Your task to perform on an android device: turn off airplane mode Image 0: 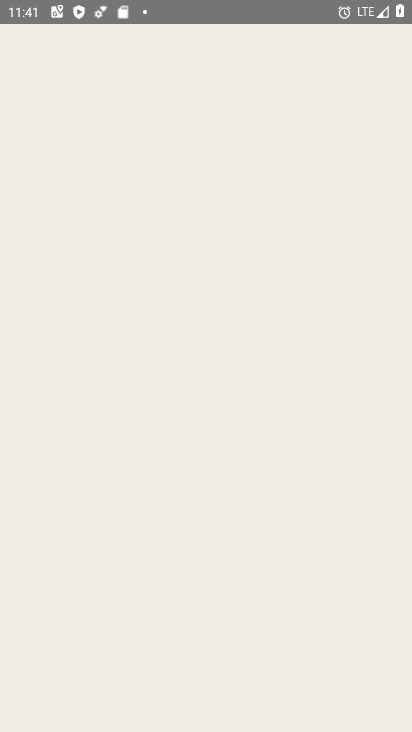
Step 0: drag from (265, 618) to (359, 115)
Your task to perform on an android device: turn off airplane mode Image 1: 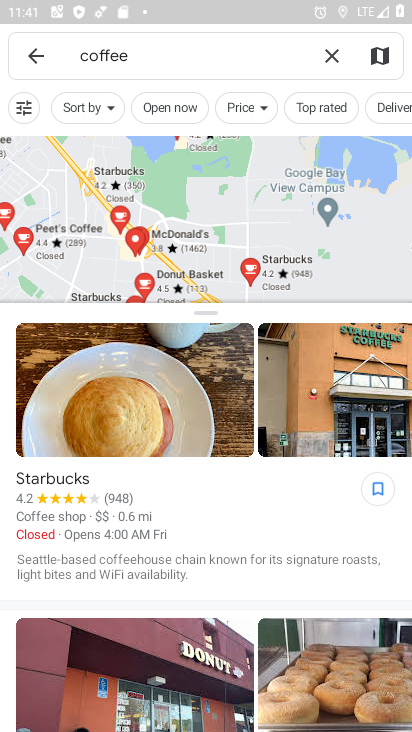
Step 1: press home button
Your task to perform on an android device: turn off airplane mode Image 2: 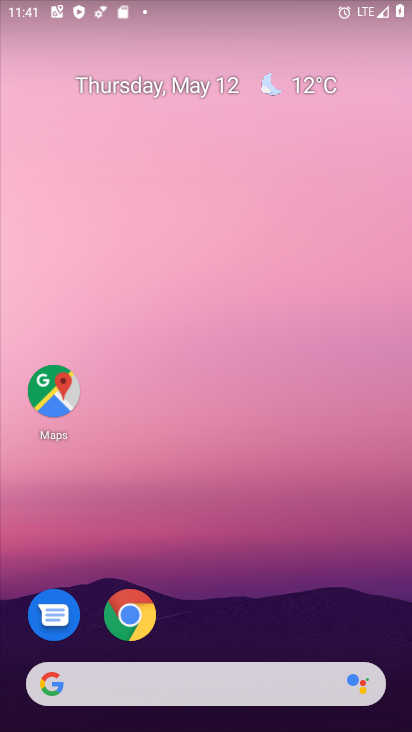
Step 2: drag from (231, 597) to (379, 8)
Your task to perform on an android device: turn off airplane mode Image 3: 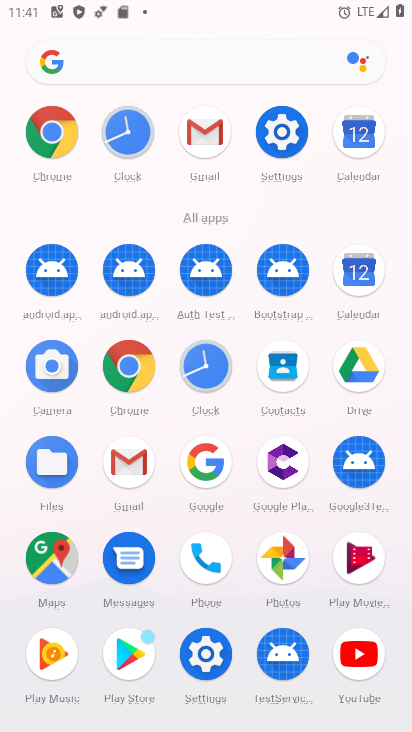
Step 3: click (283, 148)
Your task to perform on an android device: turn off airplane mode Image 4: 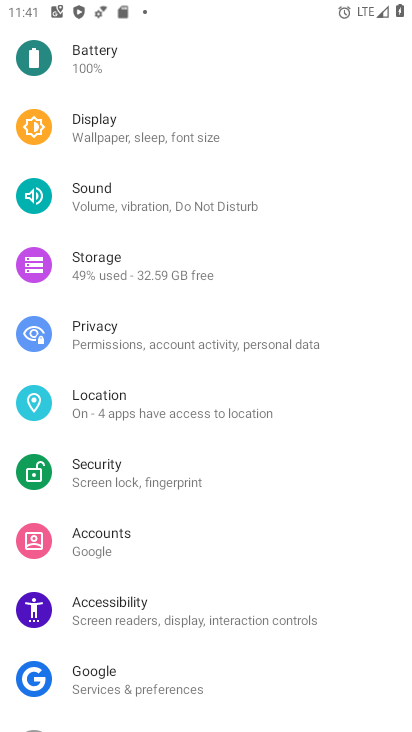
Step 4: drag from (229, 231) to (205, 380)
Your task to perform on an android device: turn off airplane mode Image 5: 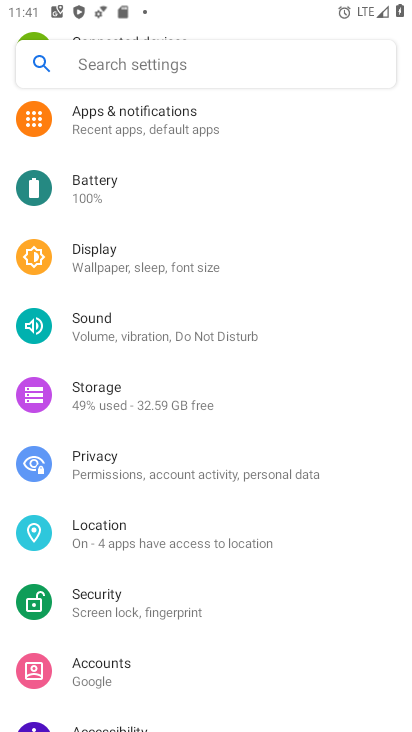
Step 5: drag from (217, 192) to (190, 410)
Your task to perform on an android device: turn off airplane mode Image 6: 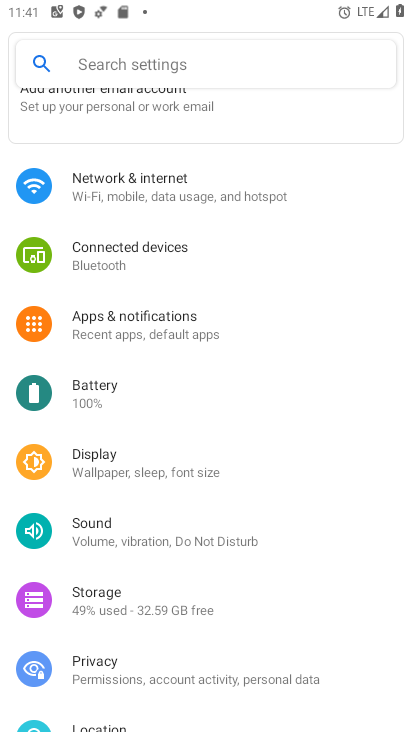
Step 6: click (238, 188)
Your task to perform on an android device: turn off airplane mode Image 7: 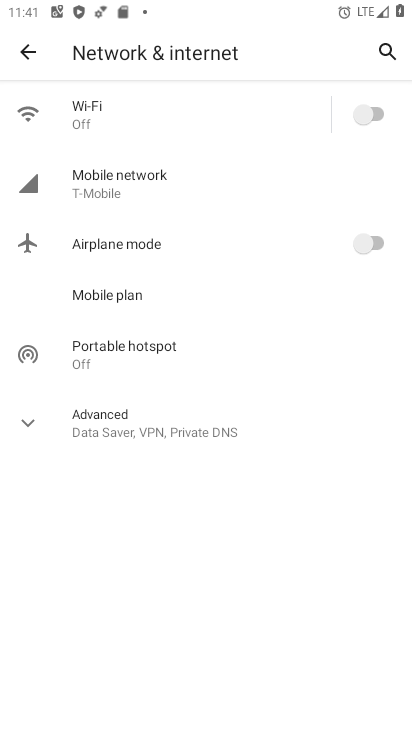
Step 7: task complete